Your task to perform on an android device: check storage Image 0: 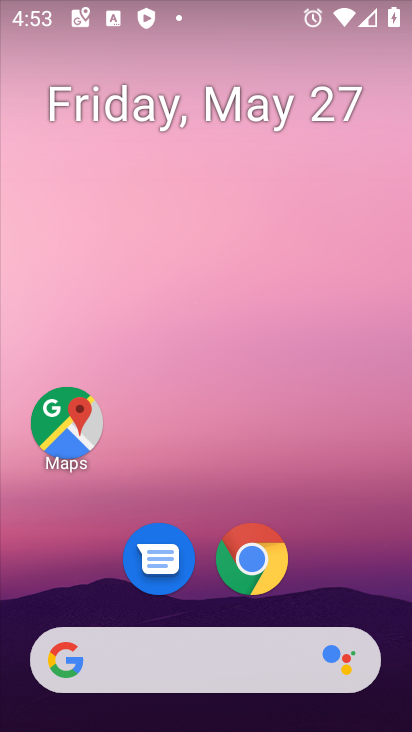
Step 0: drag from (265, 633) to (288, 44)
Your task to perform on an android device: check storage Image 1: 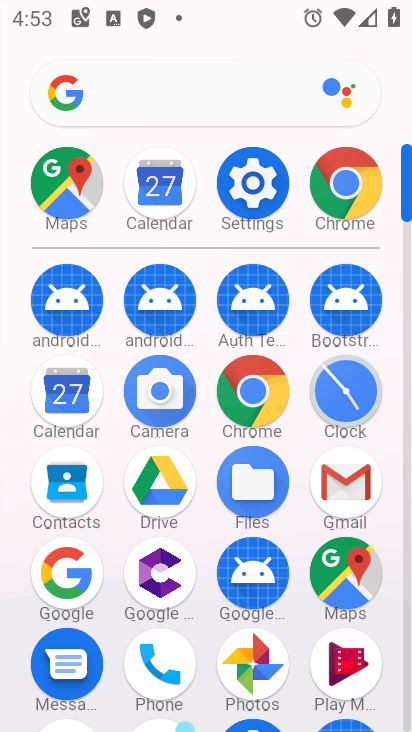
Step 1: click (265, 197)
Your task to perform on an android device: check storage Image 2: 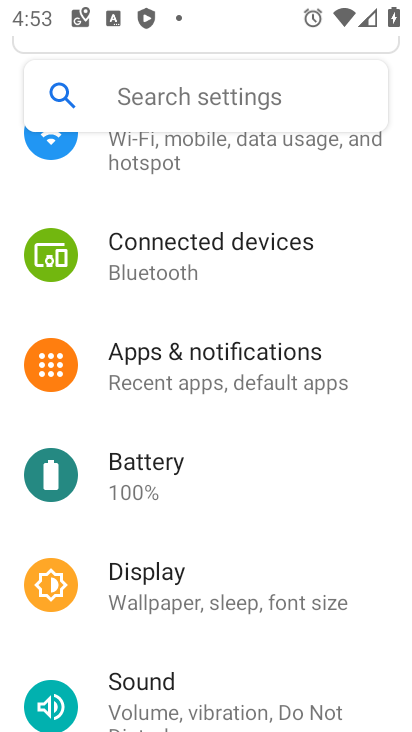
Step 2: drag from (257, 662) to (244, 94)
Your task to perform on an android device: check storage Image 3: 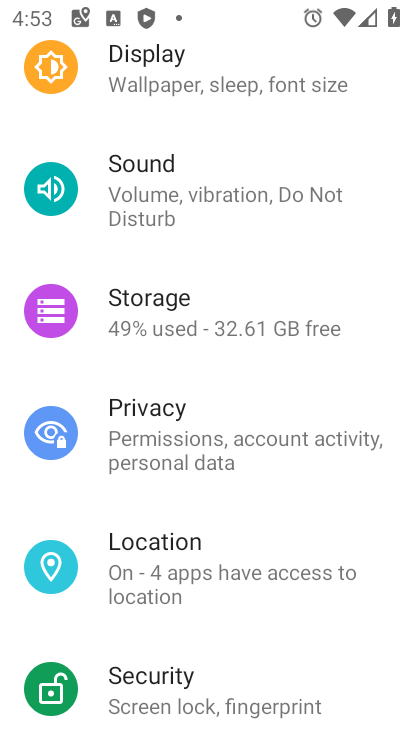
Step 3: click (225, 330)
Your task to perform on an android device: check storage Image 4: 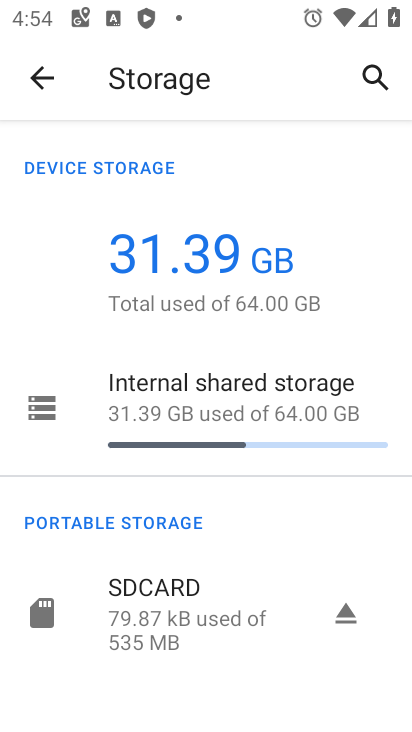
Step 4: task complete